Your task to perform on an android device: Is it going to rain today? Image 0: 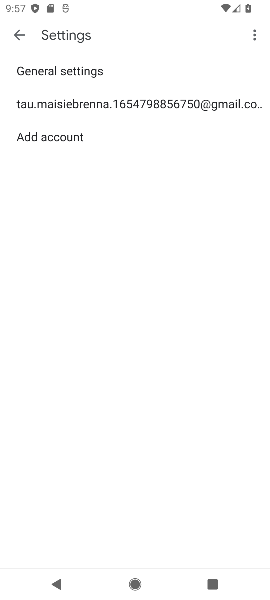
Step 0: press home button
Your task to perform on an android device: Is it going to rain today? Image 1: 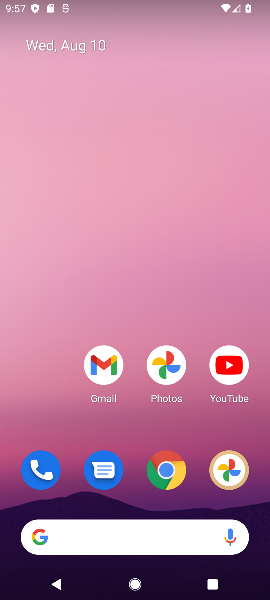
Step 1: click (114, 523)
Your task to perform on an android device: Is it going to rain today? Image 2: 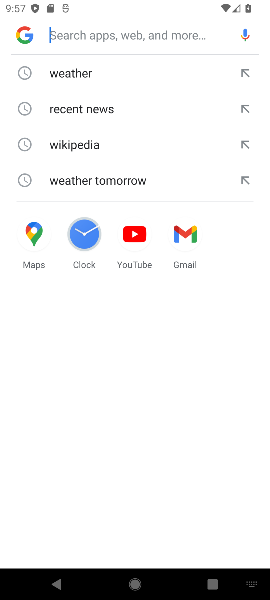
Step 2: click (92, 70)
Your task to perform on an android device: Is it going to rain today? Image 3: 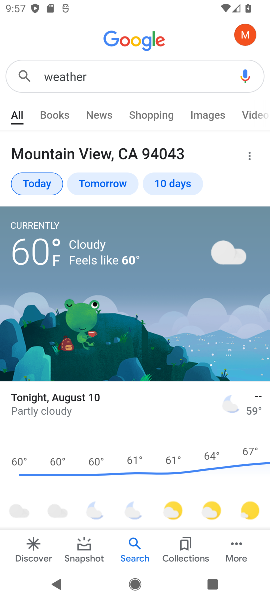
Step 3: task complete